Your task to perform on an android device: create a new album in the google photos Image 0: 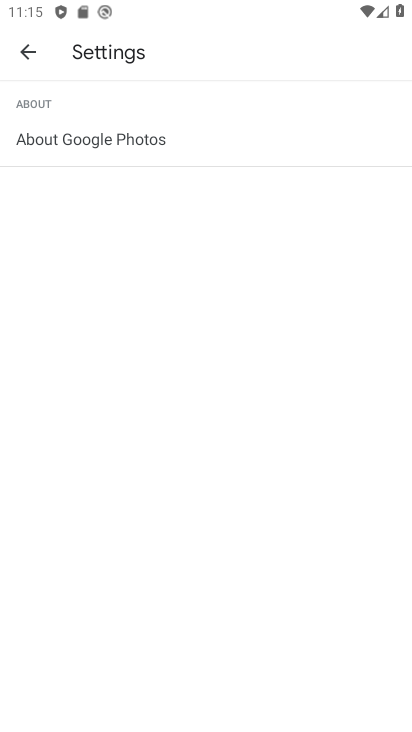
Step 0: press home button
Your task to perform on an android device: create a new album in the google photos Image 1: 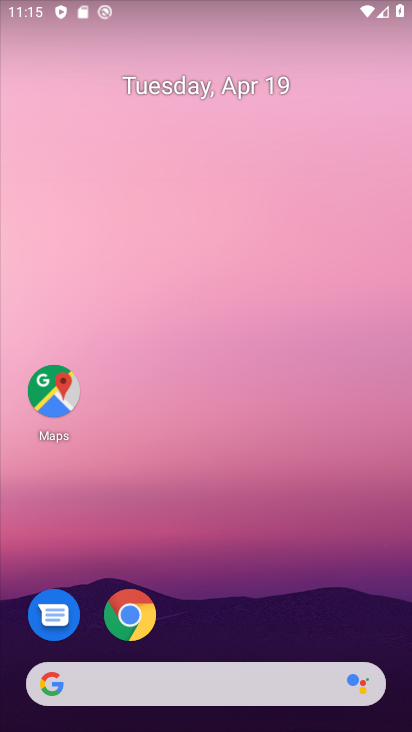
Step 1: drag from (195, 531) to (195, 0)
Your task to perform on an android device: create a new album in the google photos Image 2: 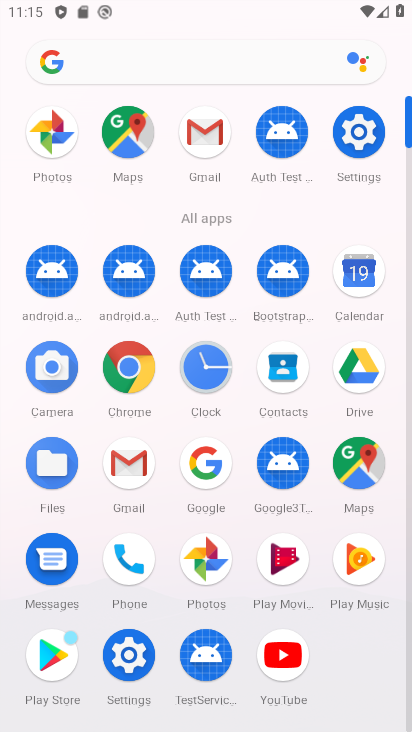
Step 2: click (48, 144)
Your task to perform on an android device: create a new album in the google photos Image 3: 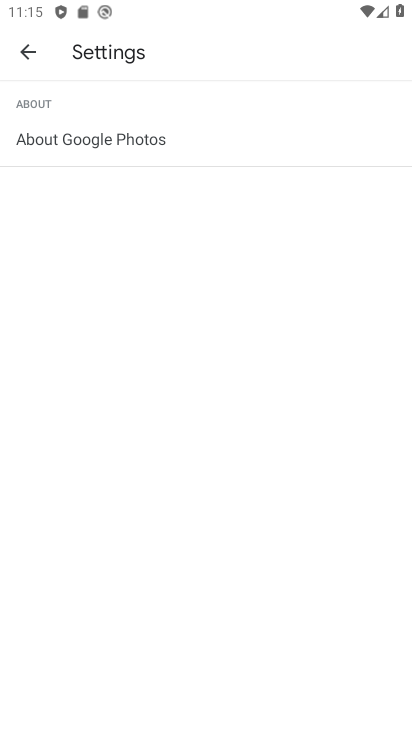
Step 3: click (33, 52)
Your task to perform on an android device: create a new album in the google photos Image 4: 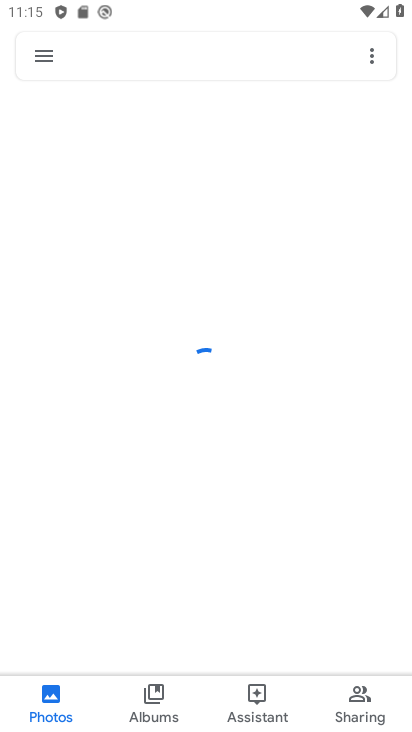
Step 4: click (164, 696)
Your task to perform on an android device: create a new album in the google photos Image 5: 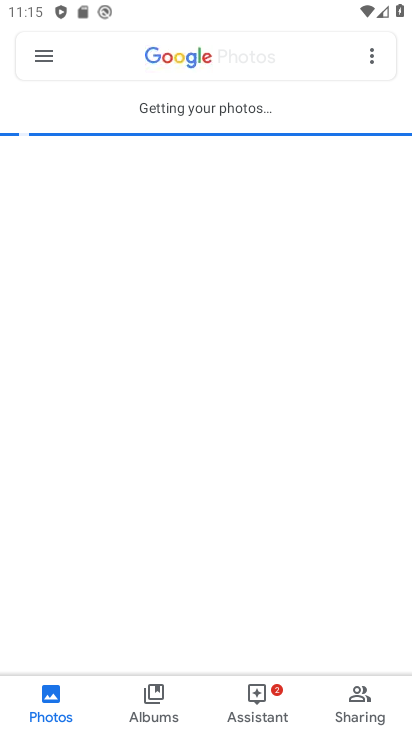
Step 5: click (152, 708)
Your task to perform on an android device: create a new album in the google photos Image 6: 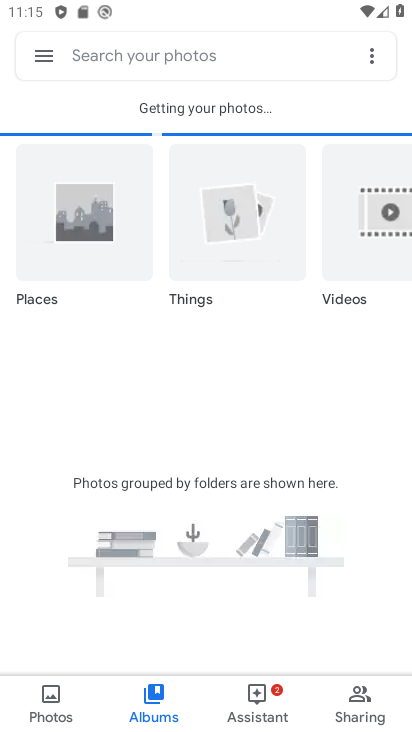
Step 6: click (369, 58)
Your task to perform on an android device: create a new album in the google photos Image 7: 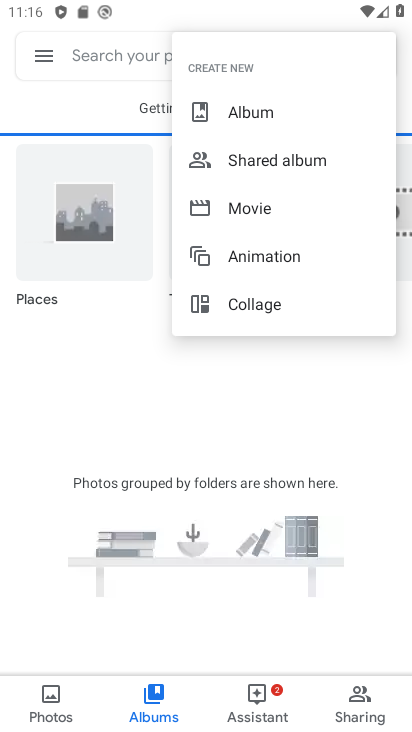
Step 7: click (277, 123)
Your task to perform on an android device: create a new album in the google photos Image 8: 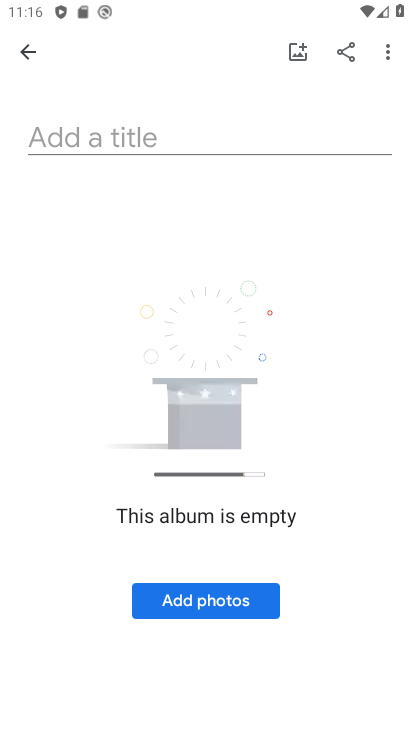
Step 8: click (131, 138)
Your task to perform on an android device: create a new album in the google photos Image 9: 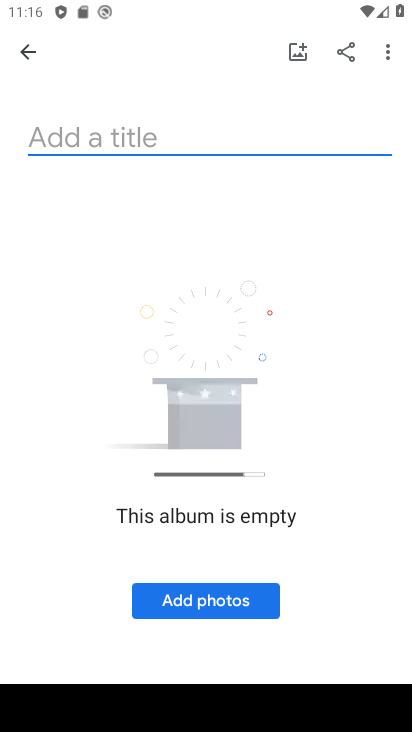
Step 9: type "mine"
Your task to perform on an android device: create a new album in the google photos Image 10: 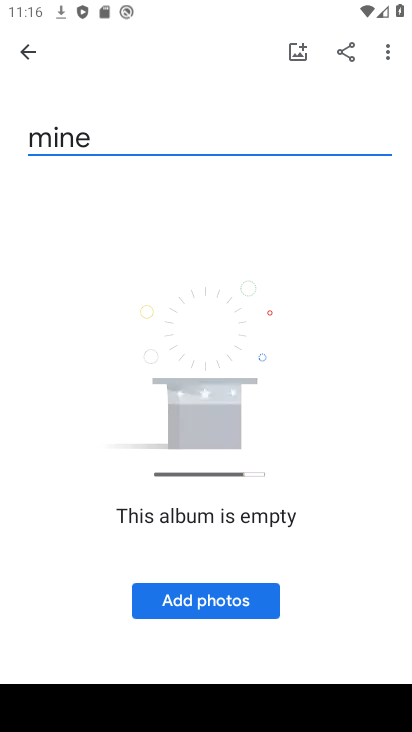
Step 10: click (300, 51)
Your task to perform on an android device: create a new album in the google photos Image 11: 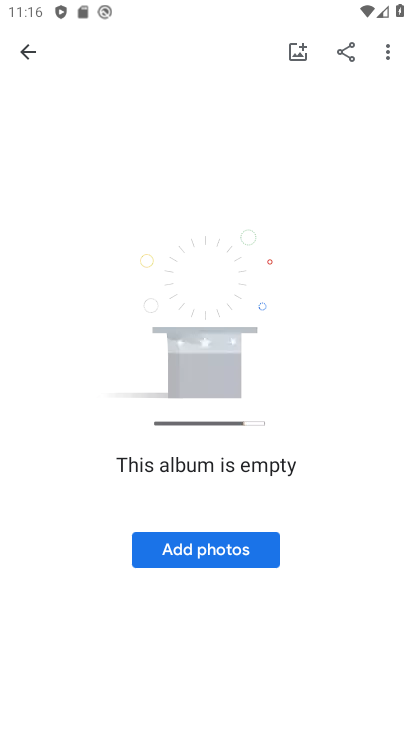
Step 11: task complete